Your task to perform on an android device: Search for pizza restaurants on Maps Image 0: 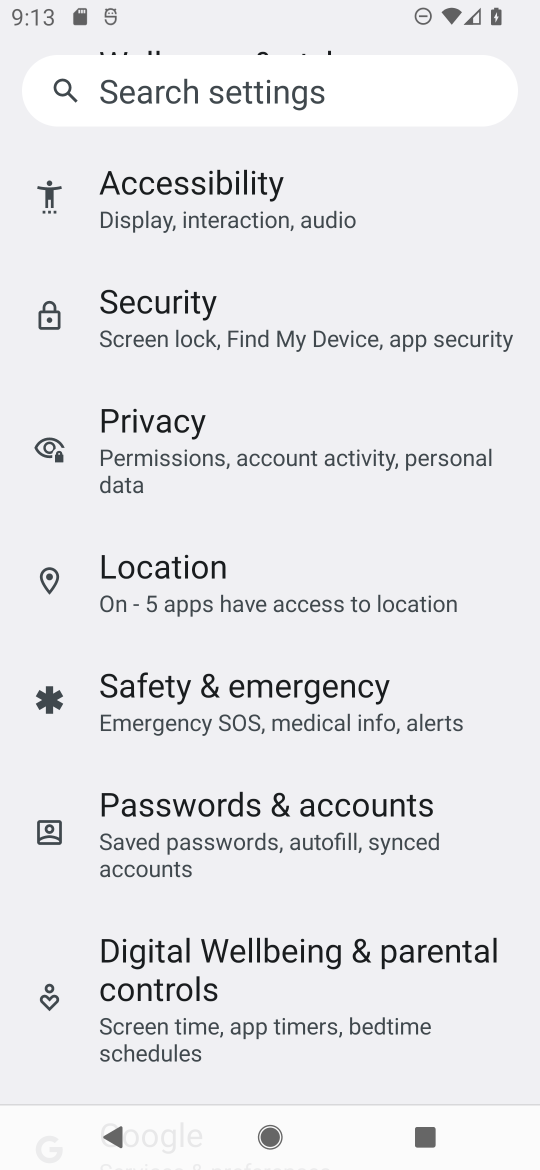
Step 0: press home button
Your task to perform on an android device: Search for pizza restaurants on Maps Image 1: 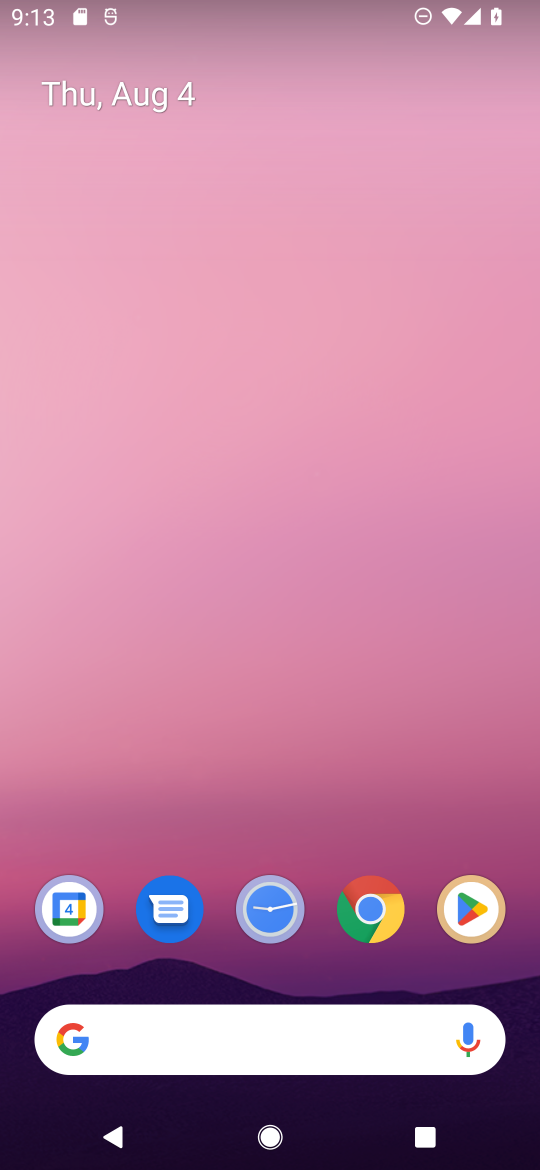
Step 1: drag from (303, 824) to (327, 348)
Your task to perform on an android device: Search for pizza restaurants on Maps Image 2: 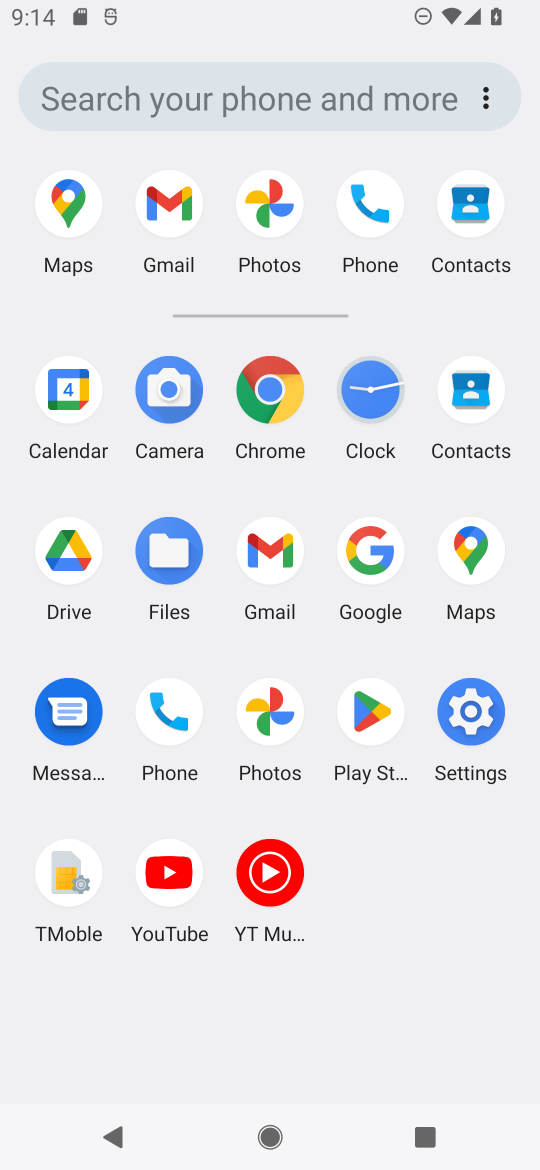
Step 2: click (465, 558)
Your task to perform on an android device: Search for pizza restaurants on Maps Image 3: 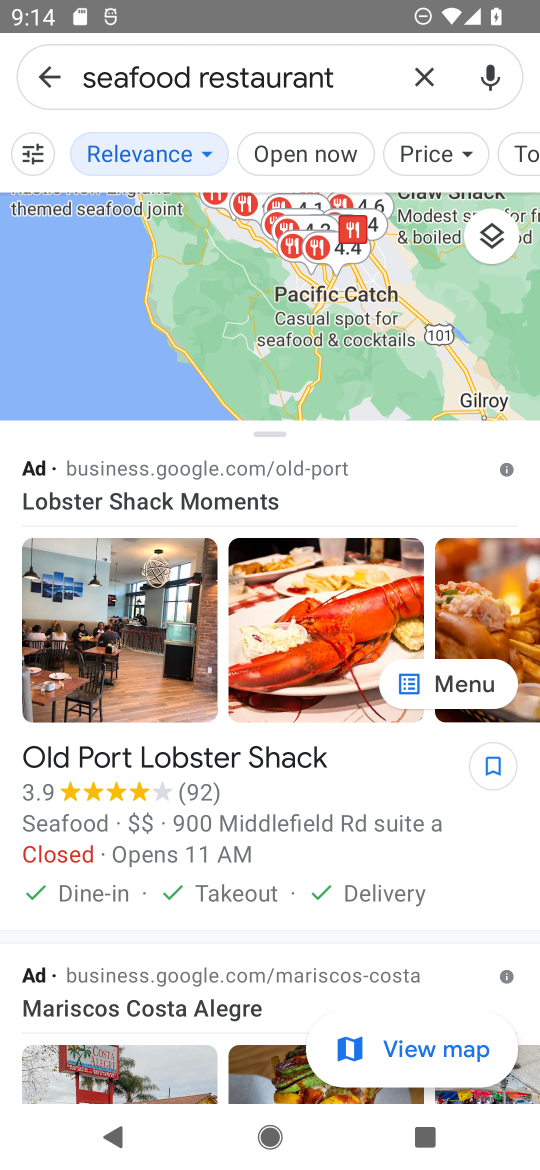
Step 3: click (420, 75)
Your task to perform on an android device: Search for pizza restaurants on Maps Image 4: 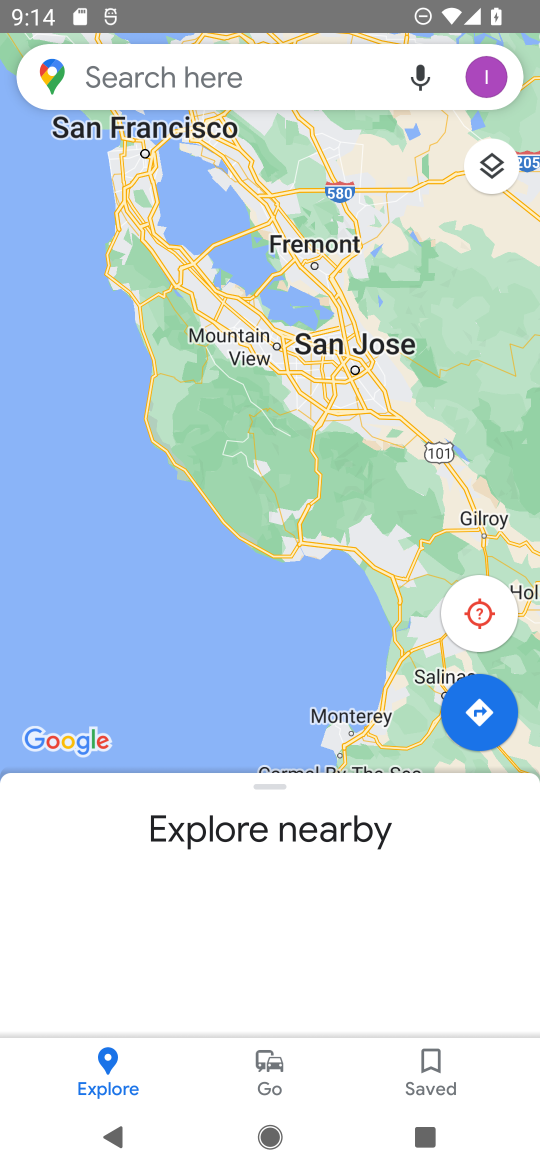
Step 4: click (294, 77)
Your task to perform on an android device: Search for pizza restaurants on Maps Image 5: 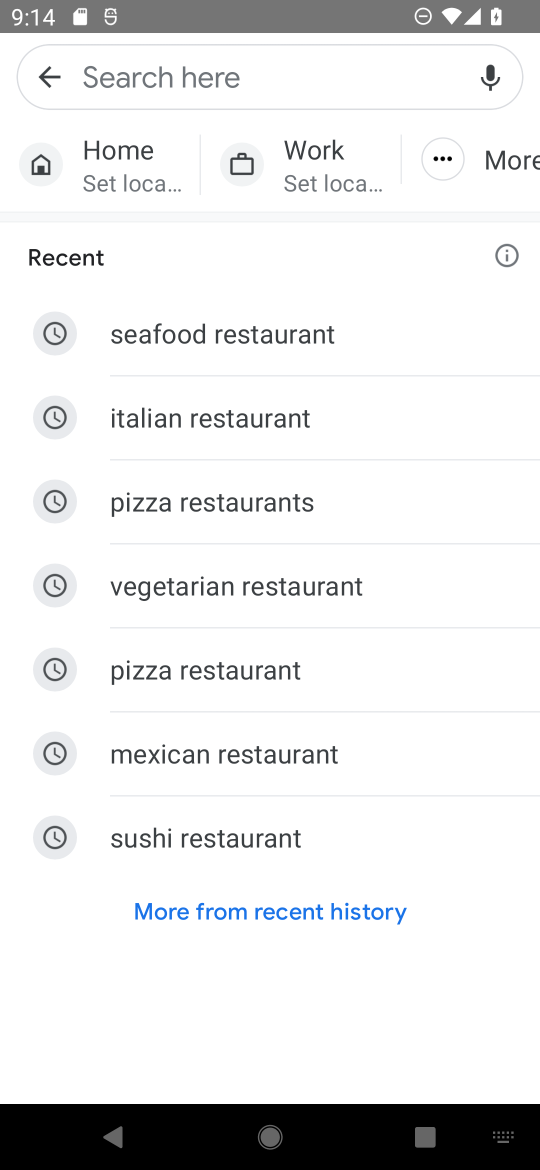
Step 5: type "pizza restaurants"
Your task to perform on an android device: Search for pizza restaurants on Maps Image 6: 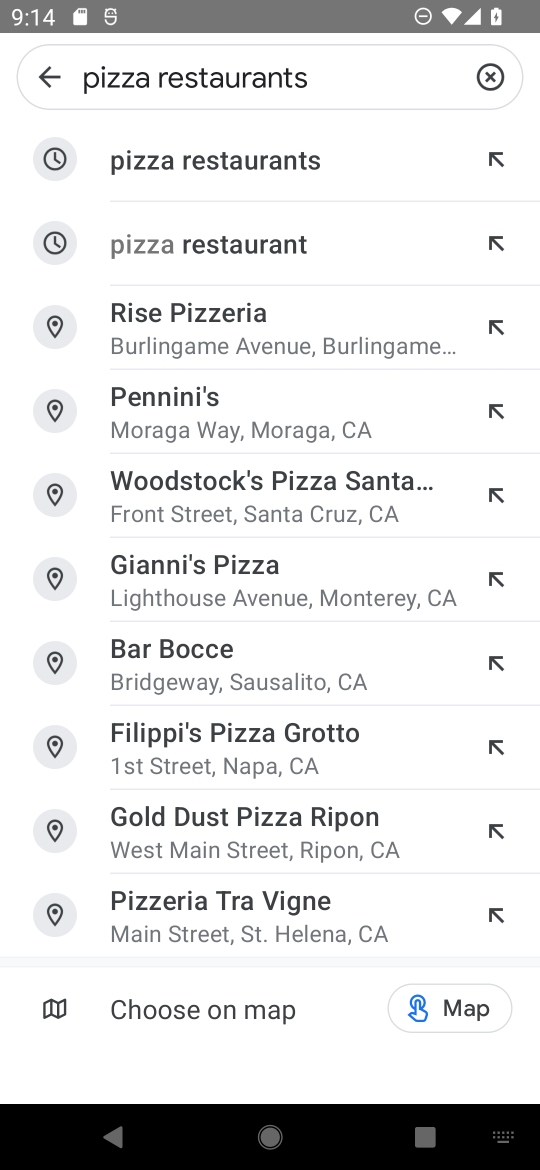
Step 6: click (280, 165)
Your task to perform on an android device: Search for pizza restaurants on Maps Image 7: 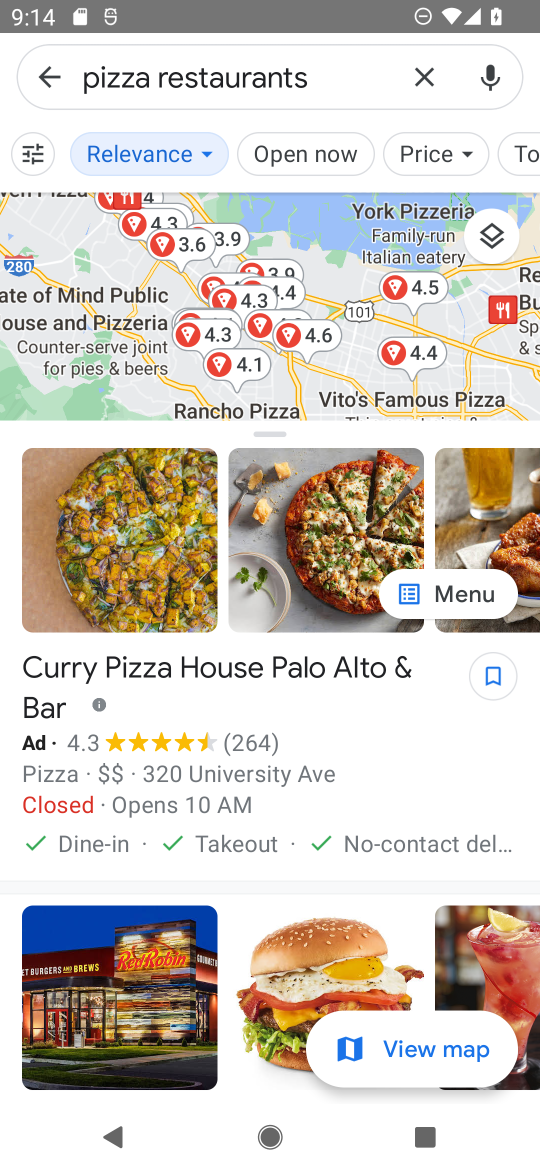
Step 7: task complete